Your task to perform on an android device: all mails in gmail Image 0: 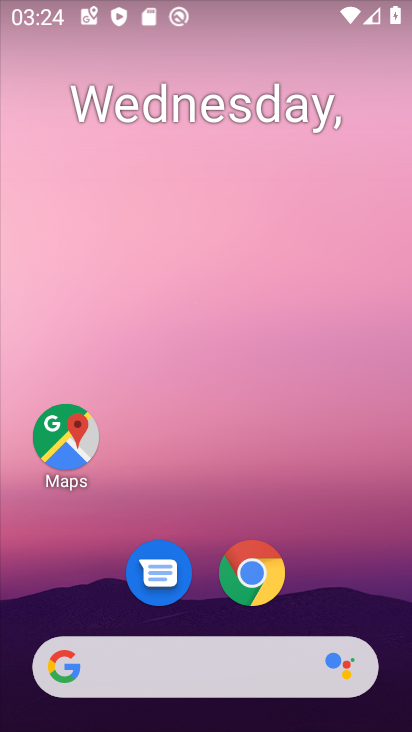
Step 0: drag from (329, 575) to (288, 47)
Your task to perform on an android device: all mails in gmail Image 1: 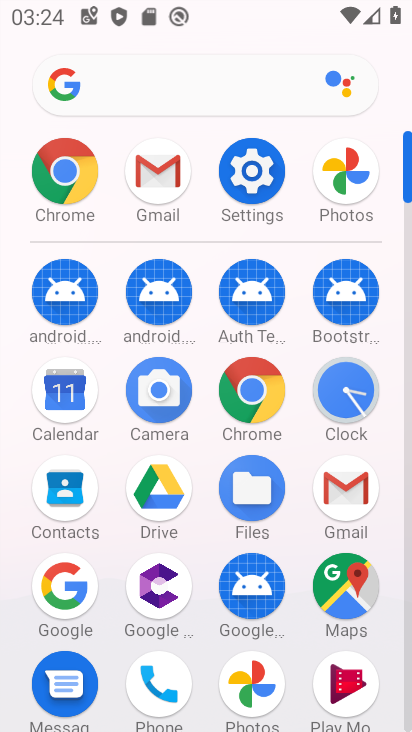
Step 1: click (158, 169)
Your task to perform on an android device: all mails in gmail Image 2: 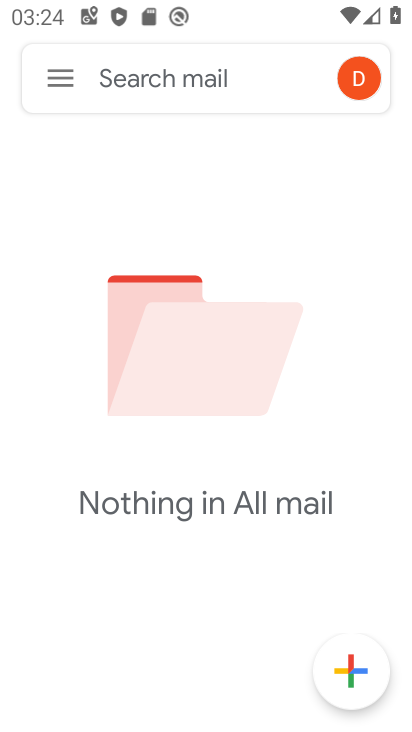
Step 2: click (48, 82)
Your task to perform on an android device: all mails in gmail Image 3: 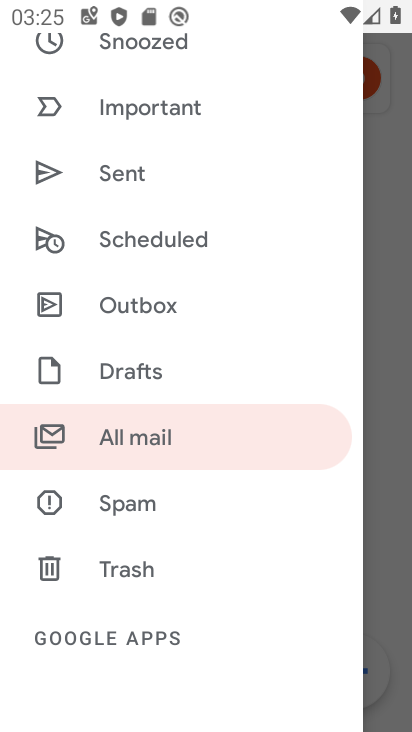
Step 3: click (146, 429)
Your task to perform on an android device: all mails in gmail Image 4: 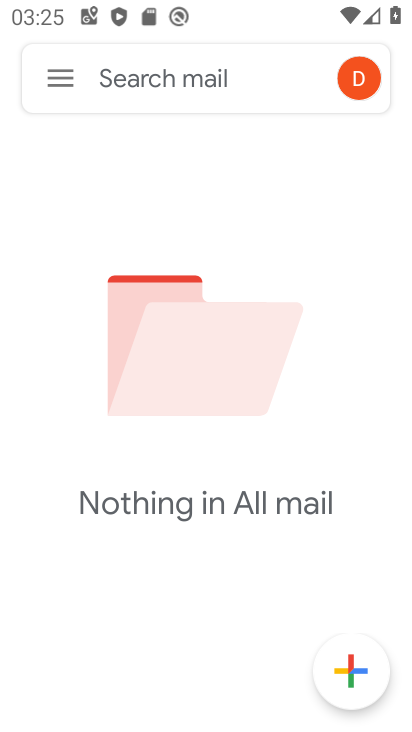
Step 4: task complete